Your task to perform on an android device: turn off javascript in the chrome app Image 0: 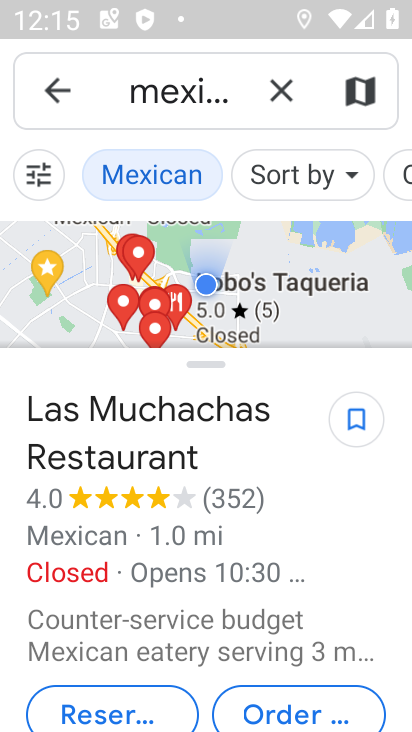
Step 0: press home button
Your task to perform on an android device: turn off javascript in the chrome app Image 1: 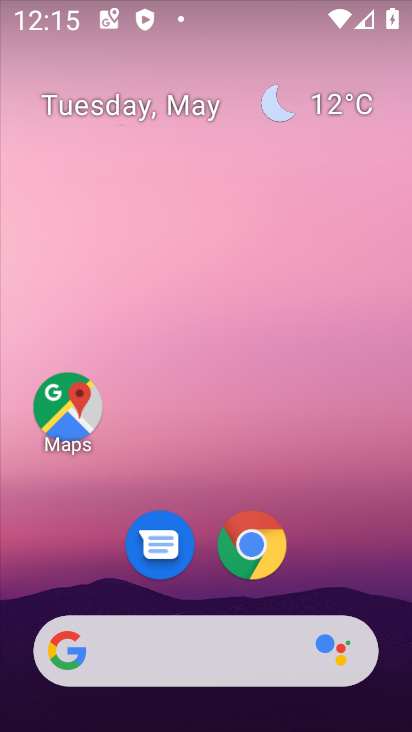
Step 1: click (247, 548)
Your task to perform on an android device: turn off javascript in the chrome app Image 2: 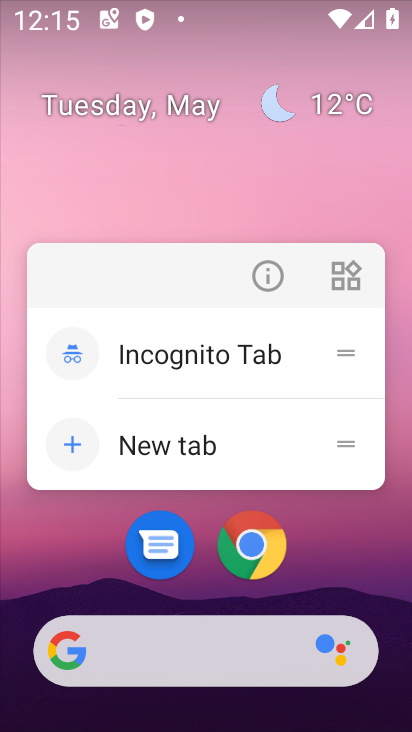
Step 2: click (255, 536)
Your task to perform on an android device: turn off javascript in the chrome app Image 3: 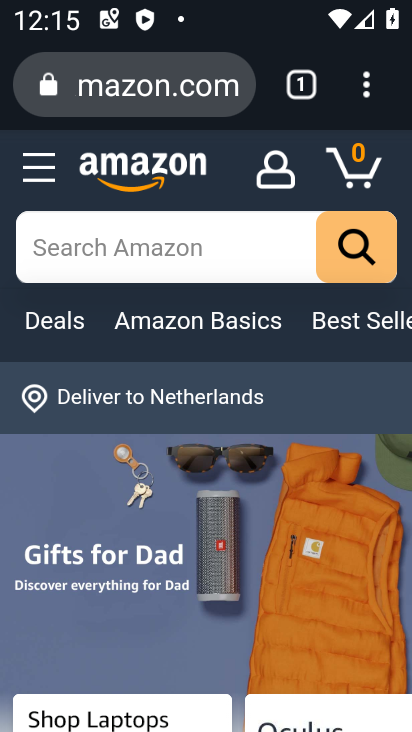
Step 3: click (366, 87)
Your task to perform on an android device: turn off javascript in the chrome app Image 4: 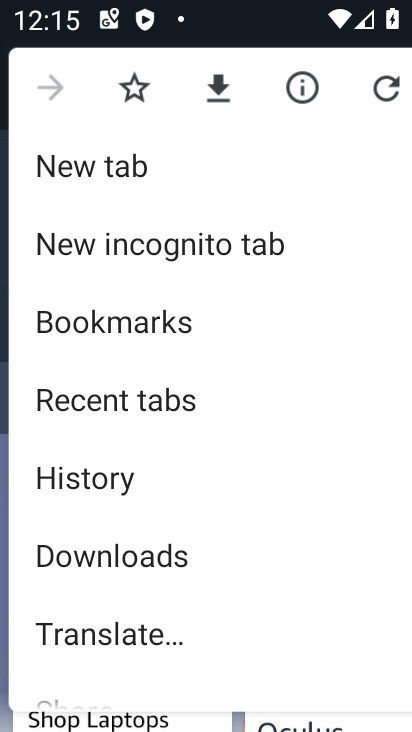
Step 4: drag from (249, 625) to (228, 227)
Your task to perform on an android device: turn off javascript in the chrome app Image 5: 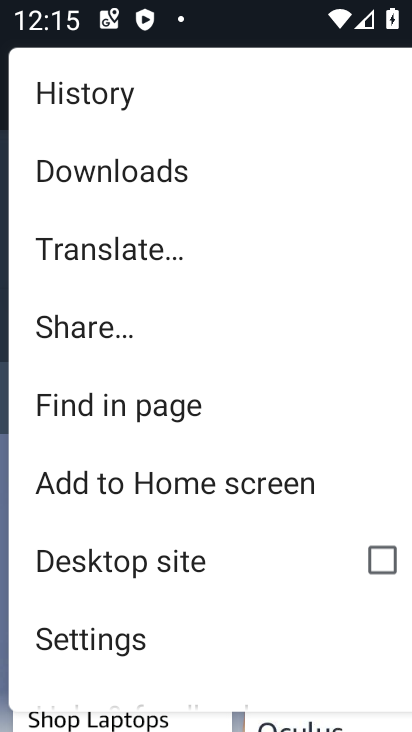
Step 5: click (121, 639)
Your task to perform on an android device: turn off javascript in the chrome app Image 6: 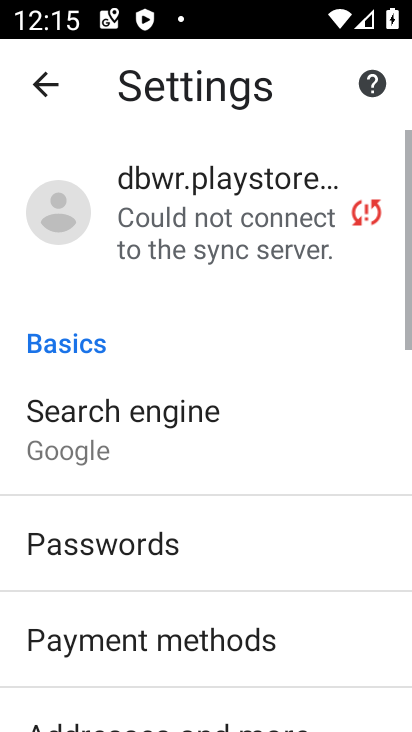
Step 6: drag from (221, 689) to (207, 185)
Your task to perform on an android device: turn off javascript in the chrome app Image 7: 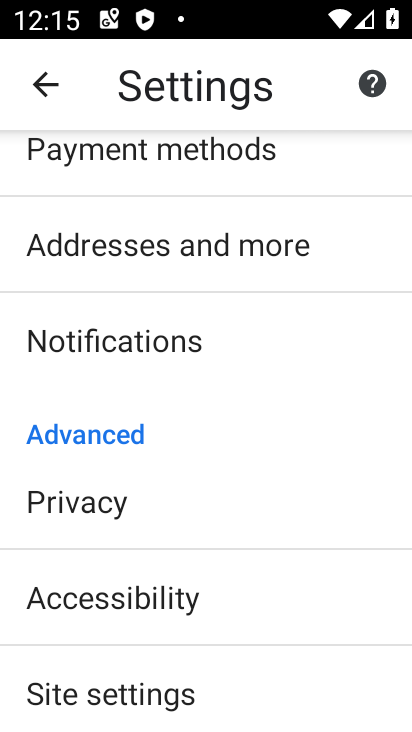
Step 7: click (149, 703)
Your task to perform on an android device: turn off javascript in the chrome app Image 8: 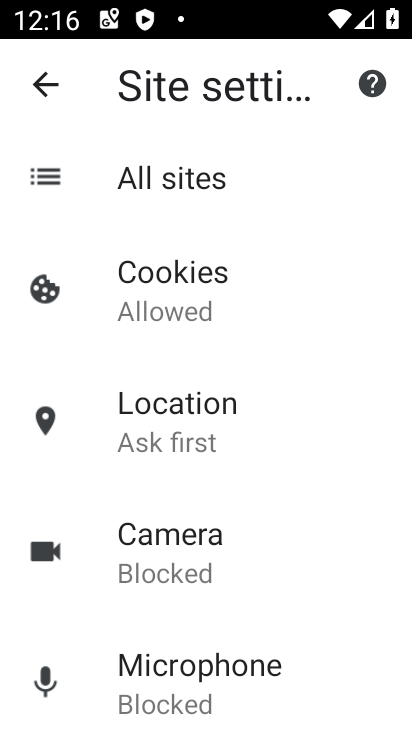
Step 8: drag from (235, 500) to (227, 181)
Your task to perform on an android device: turn off javascript in the chrome app Image 9: 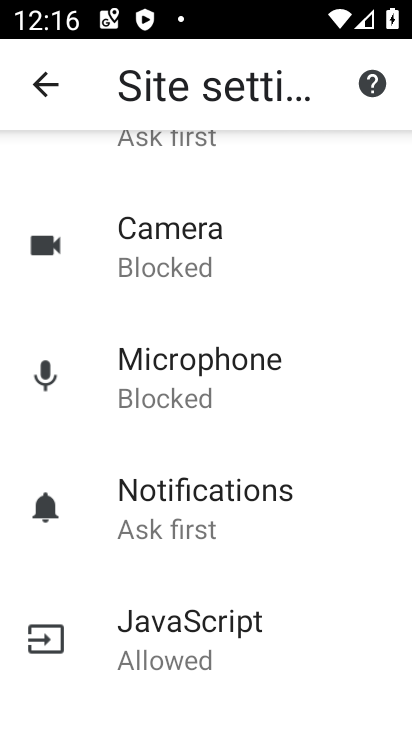
Step 9: click (216, 634)
Your task to perform on an android device: turn off javascript in the chrome app Image 10: 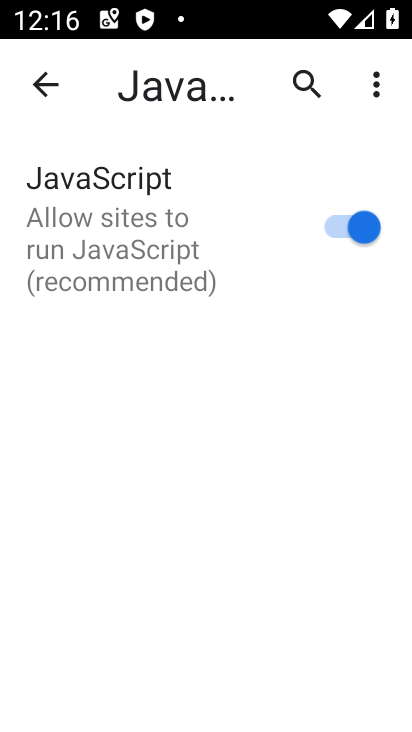
Step 10: click (337, 220)
Your task to perform on an android device: turn off javascript in the chrome app Image 11: 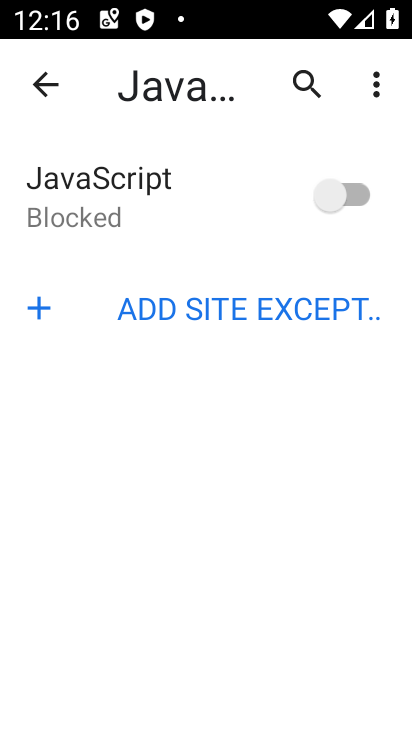
Step 11: task complete